Your task to perform on an android device: empty trash in the gmail app Image 0: 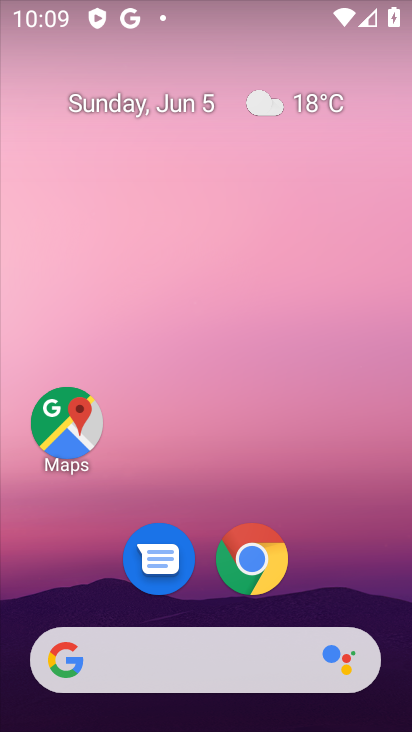
Step 0: drag from (331, 219) to (320, 165)
Your task to perform on an android device: empty trash in the gmail app Image 1: 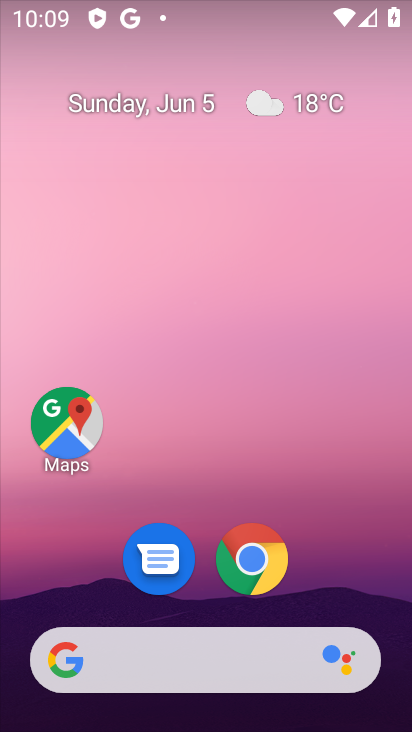
Step 1: drag from (332, 278) to (313, 95)
Your task to perform on an android device: empty trash in the gmail app Image 2: 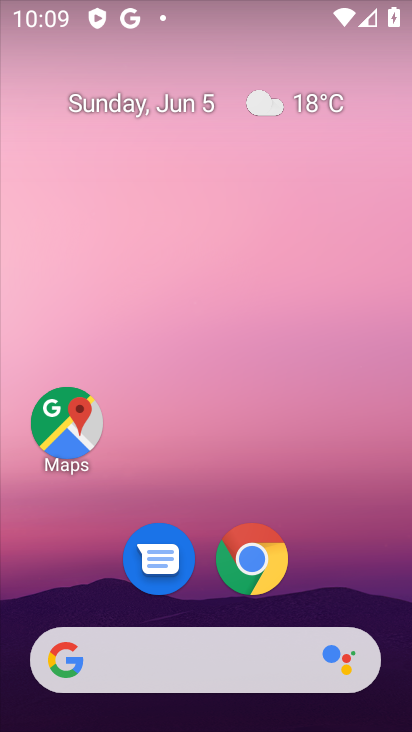
Step 2: drag from (400, 721) to (325, 78)
Your task to perform on an android device: empty trash in the gmail app Image 3: 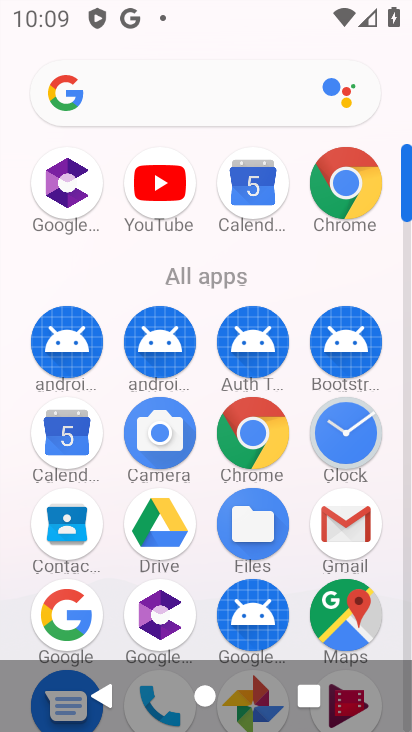
Step 3: click (326, 524)
Your task to perform on an android device: empty trash in the gmail app Image 4: 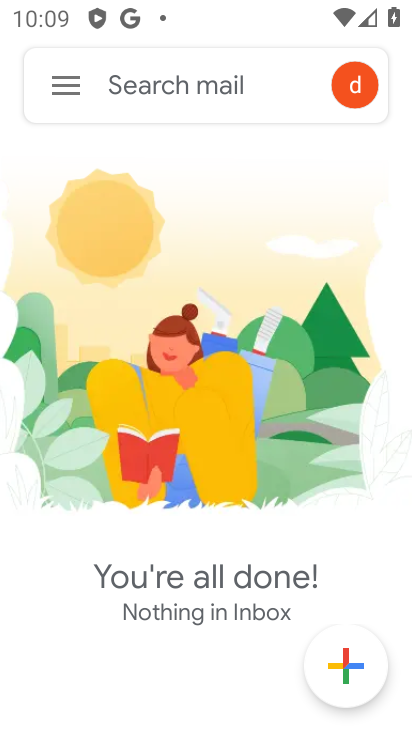
Step 4: click (48, 94)
Your task to perform on an android device: empty trash in the gmail app Image 5: 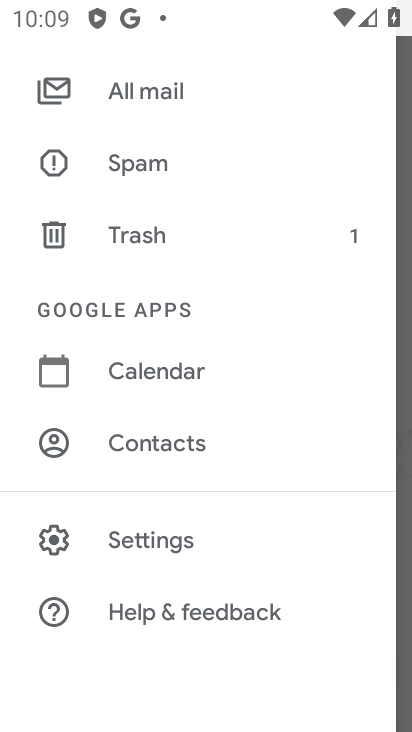
Step 5: click (125, 224)
Your task to perform on an android device: empty trash in the gmail app Image 6: 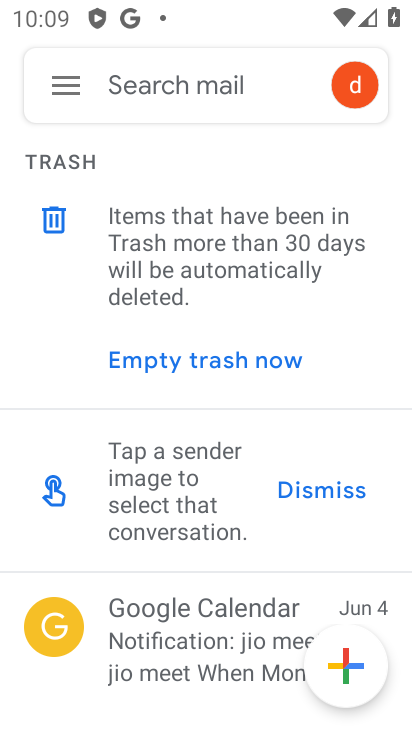
Step 6: click (174, 358)
Your task to perform on an android device: empty trash in the gmail app Image 7: 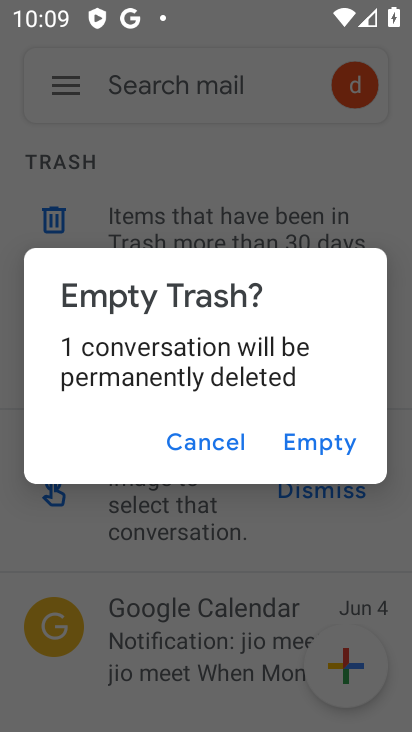
Step 7: click (314, 438)
Your task to perform on an android device: empty trash in the gmail app Image 8: 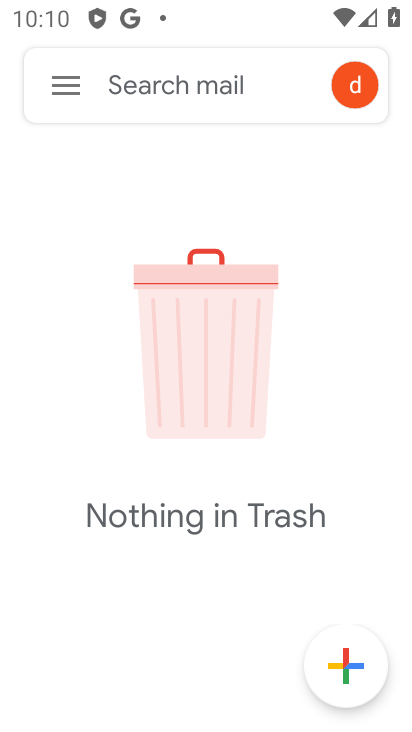
Step 8: task complete